Your task to perform on an android device: When is my next meeting? Image 0: 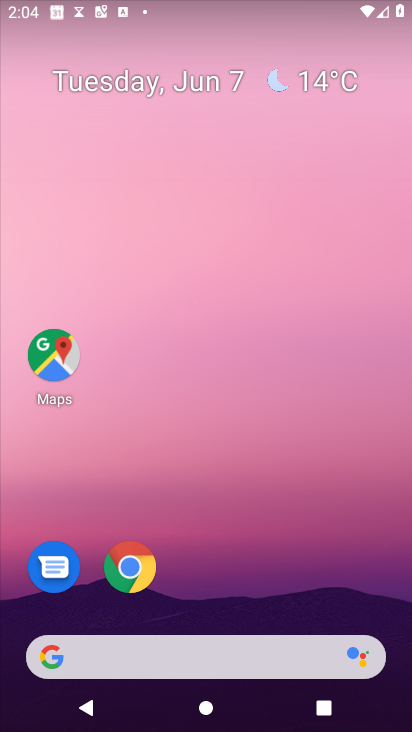
Step 0: drag from (187, 541) to (173, 6)
Your task to perform on an android device: When is my next meeting? Image 1: 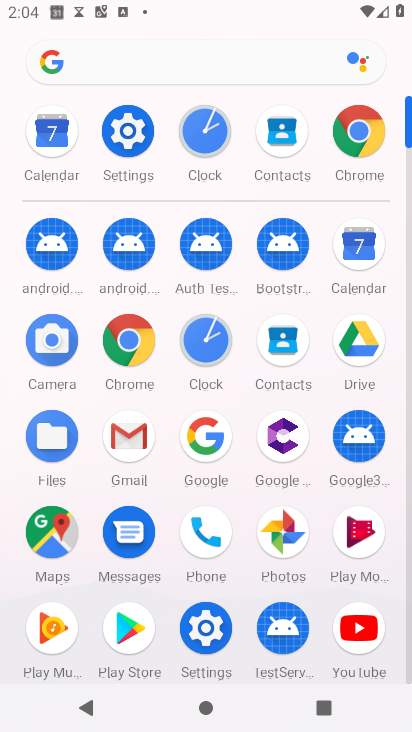
Step 1: click (363, 248)
Your task to perform on an android device: When is my next meeting? Image 2: 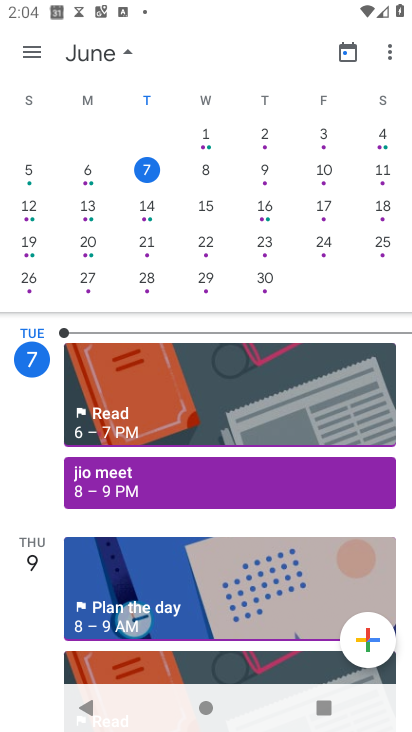
Step 2: click (202, 161)
Your task to perform on an android device: When is my next meeting? Image 3: 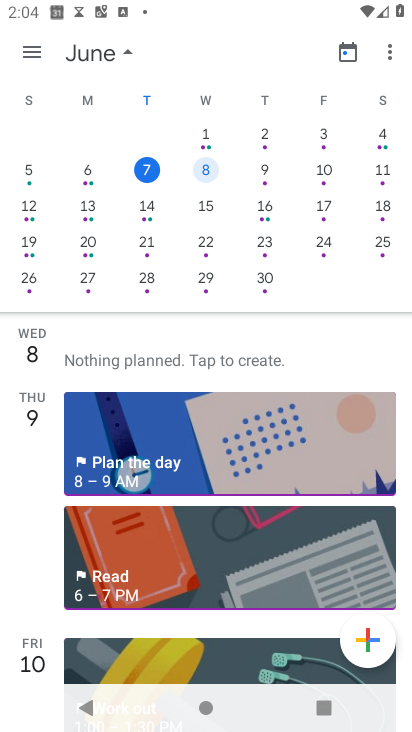
Step 3: task complete